Your task to perform on an android device: Open Android settings Image 0: 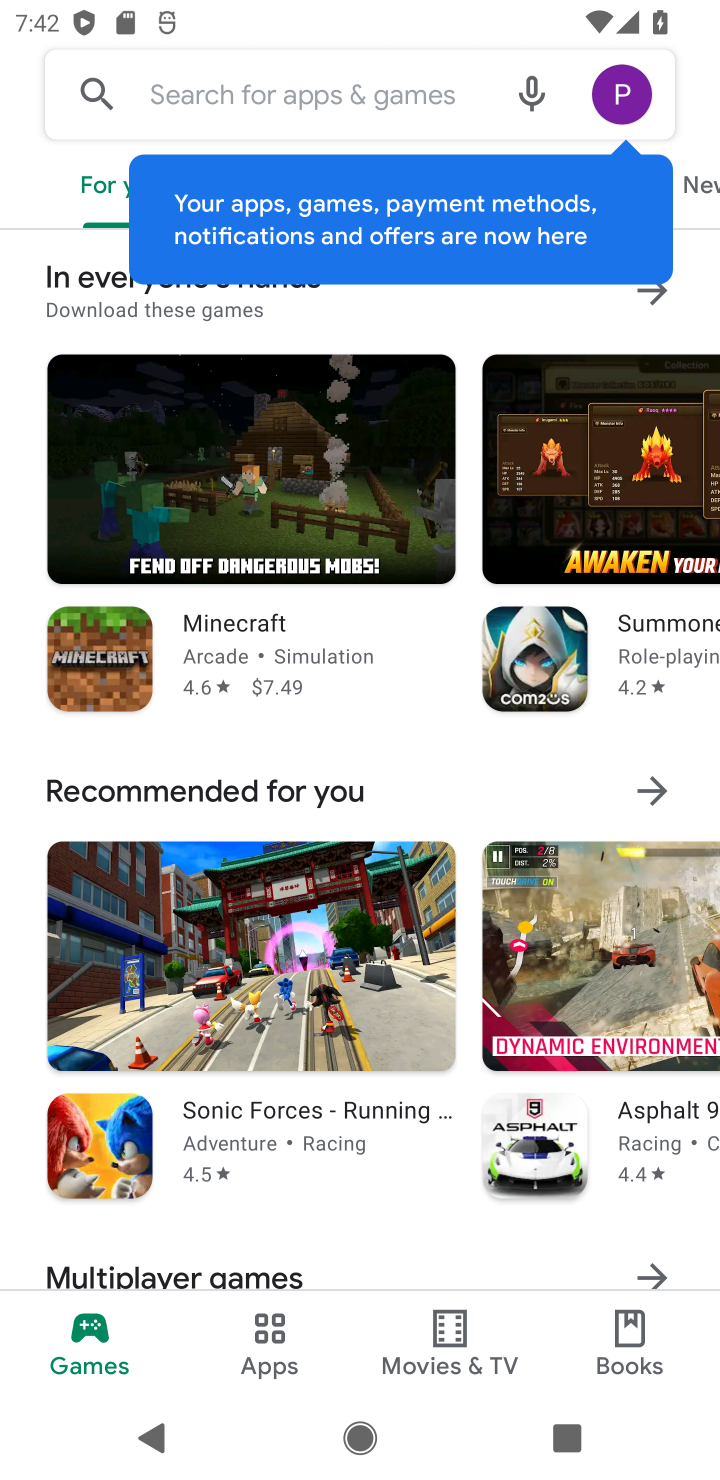
Step 0: press home button
Your task to perform on an android device: Open Android settings Image 1: 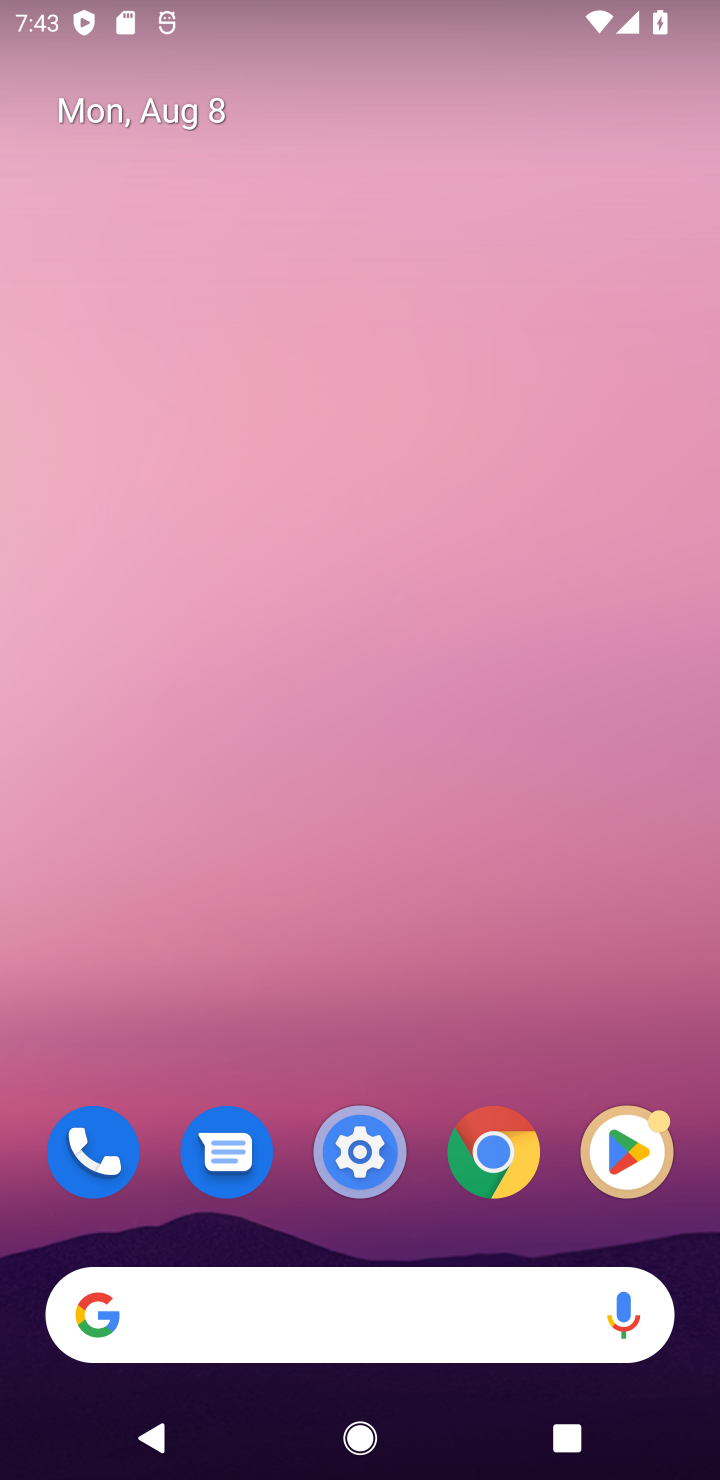
Step 1: click (360, 1150)
Your task to perform on an android device: Open Android settings Image 2: 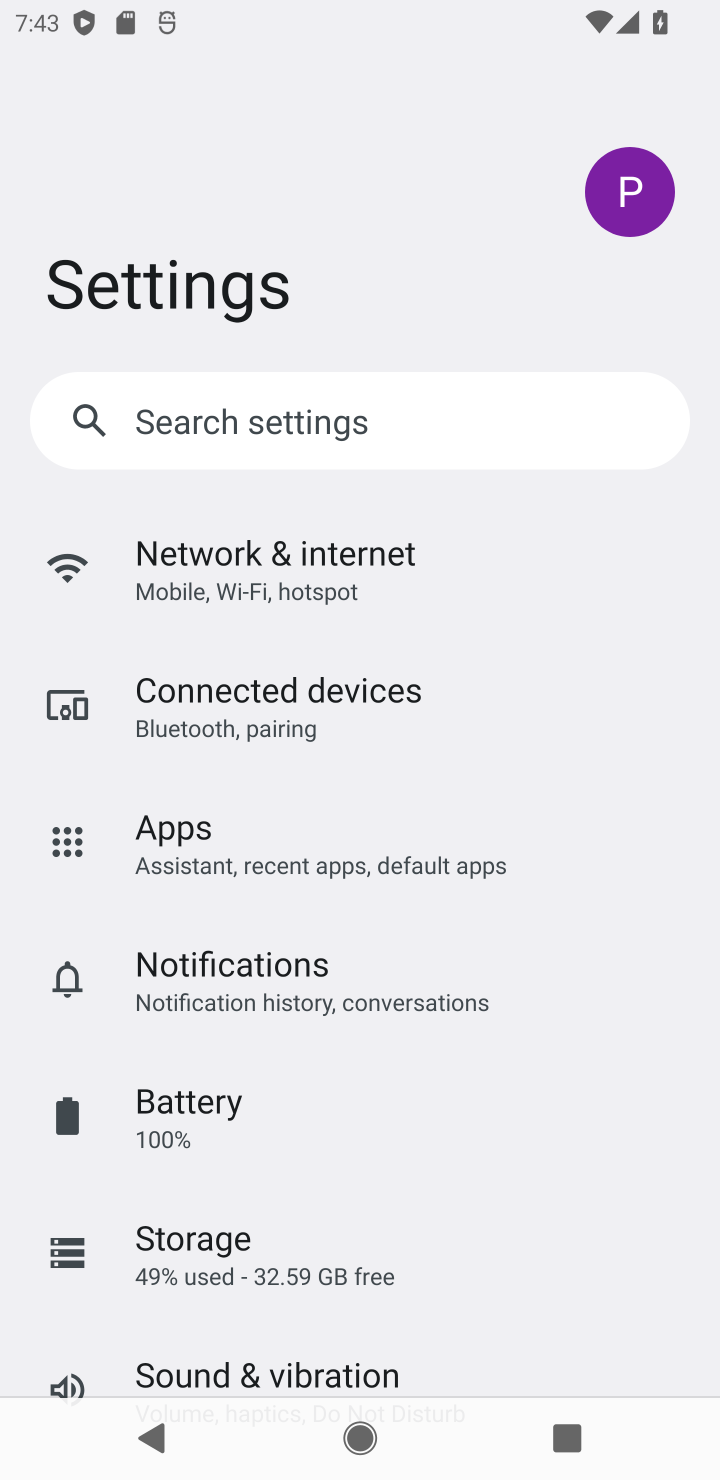
Step 2: task complete